Your task to perform on an android device: allow cookies in the chrome app Image 0: 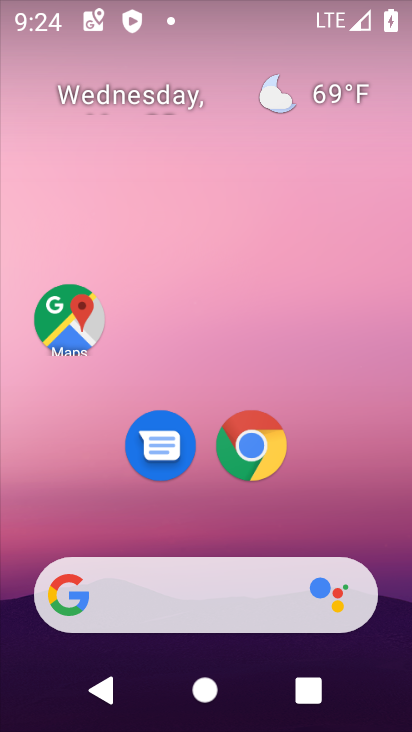
Step 0: click (253, 445)
Your task to perform on an android device: allow cookies in the chrome app Image 1: 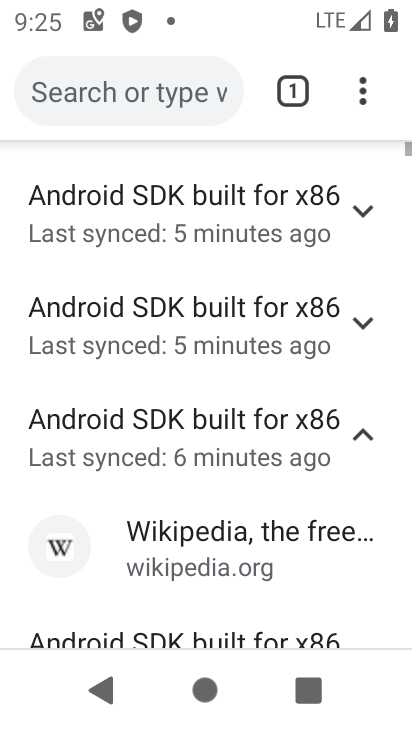
Step 1: drag from (364, 93) to (162, 484)
Your task to perform on an android device: allow cookies in the chrome app Image 2: 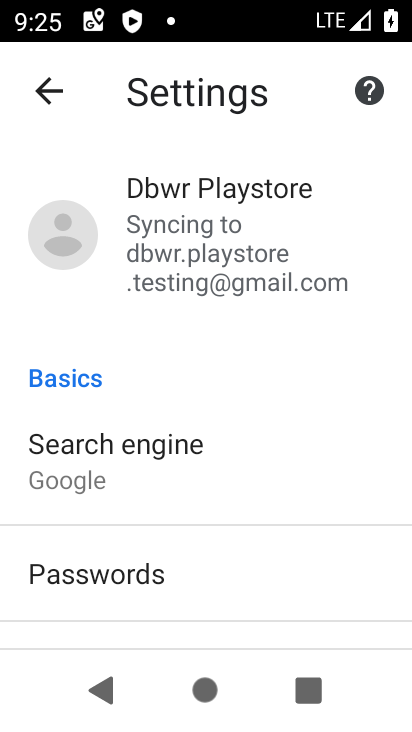
Step 2: drag from (331, 546) to (396, 147)
Your task to perform on an android device: allow cookies in the chrome app Image 3: 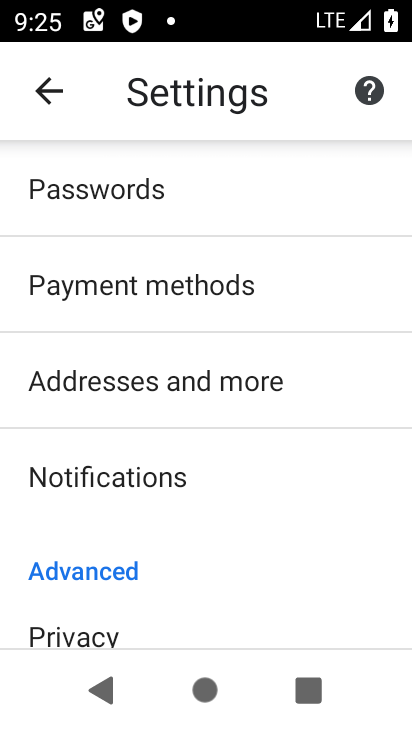
Step 3: drag from (116, 624) to (253, 204)
Your task to perform on an android device: allow cookies in the chrome app Image 4: 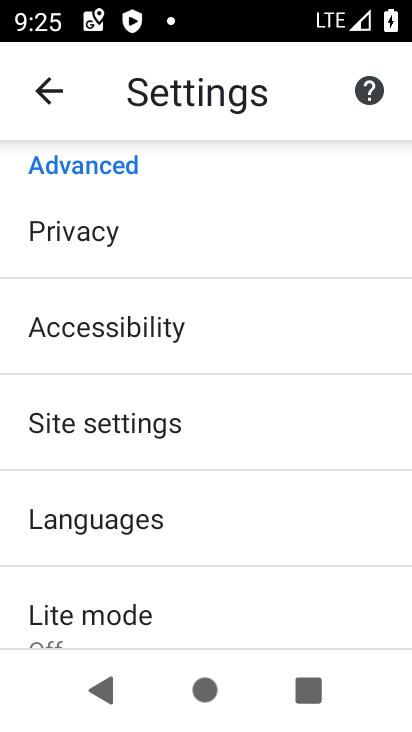
Step 4: click (88, 423)
Your task to perform on an android device: allow cookies in the chrome app Image 5: 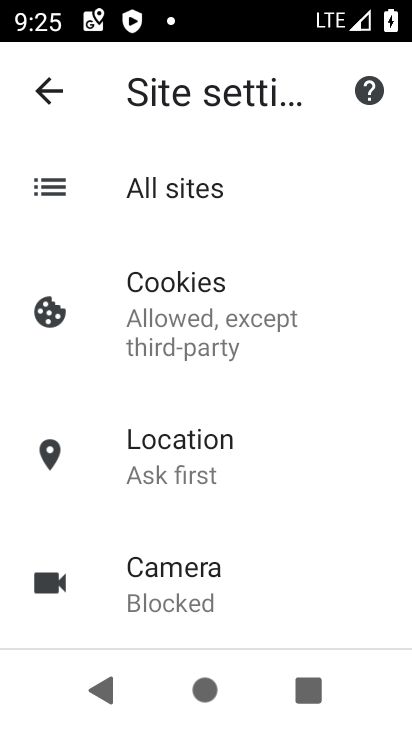
Step 5: click (171, 327)
Your task to perform on an android device: allow cookies in the chrome app Image 6: 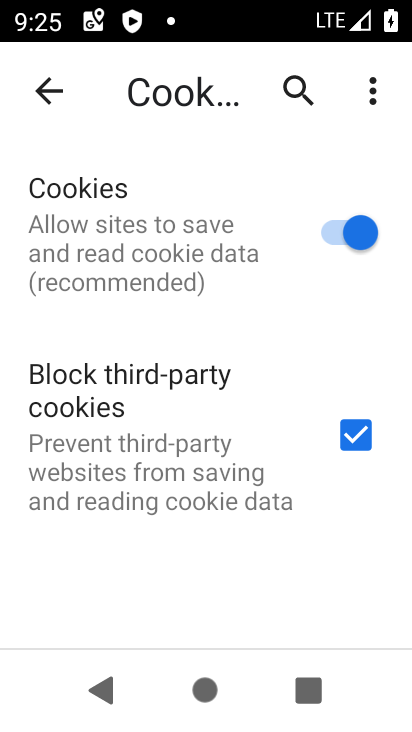
Step 6: task complete